Your task to perform on an android device: What's the weather going to be tomorrow? Image 0: 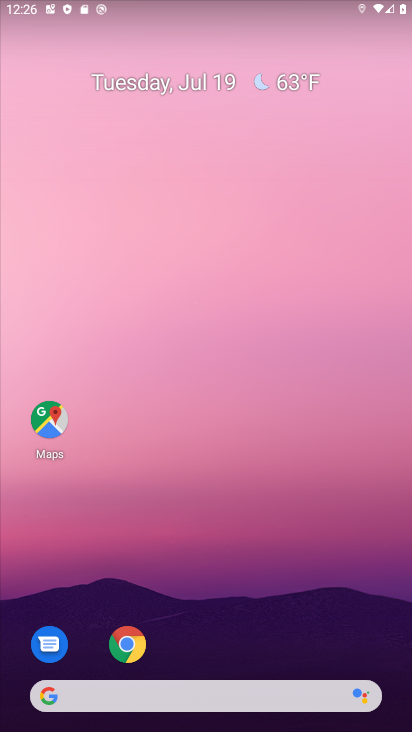
Step 0: click (261, 82)
Your task to perform on an android device: What's the weather going to be tomorrow? Image 1: 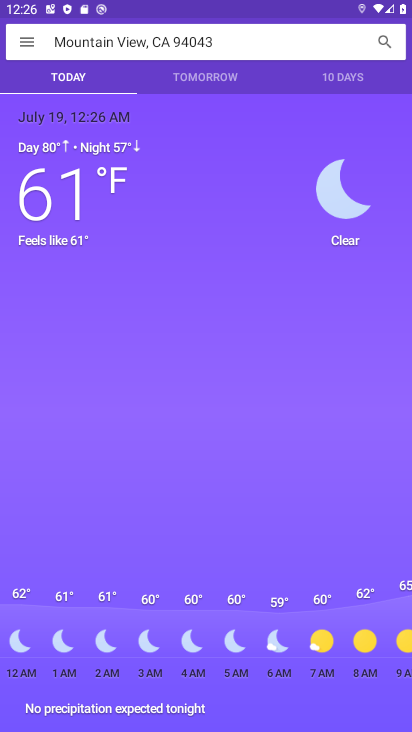
Step 1: click (205, 69)
Your task to perform on an android device: What's the weather going to be tomorrow? Image 2: 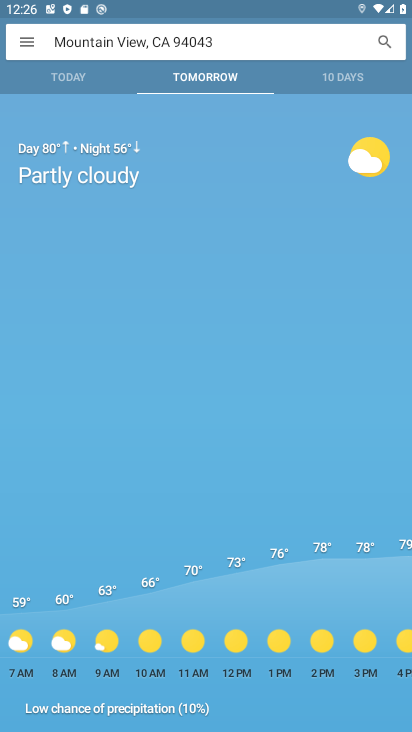
Step 2: task complete